Your task to perform on an android device: Open eBay Image 0: 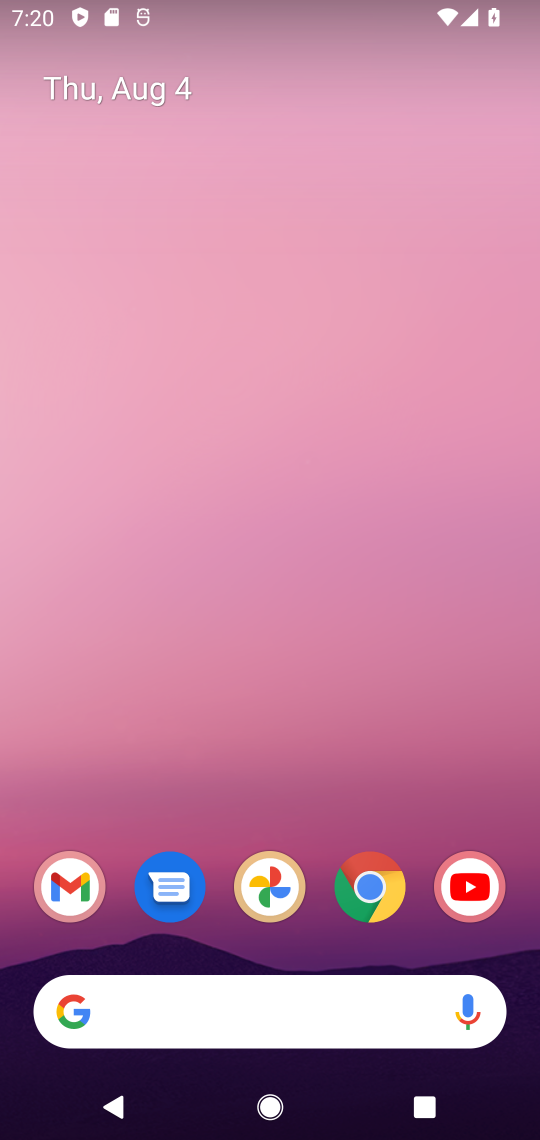
Step 0: drag from (285, 987) to (279, 513)
Your task to perform on an android device: Open eBay Image 1: 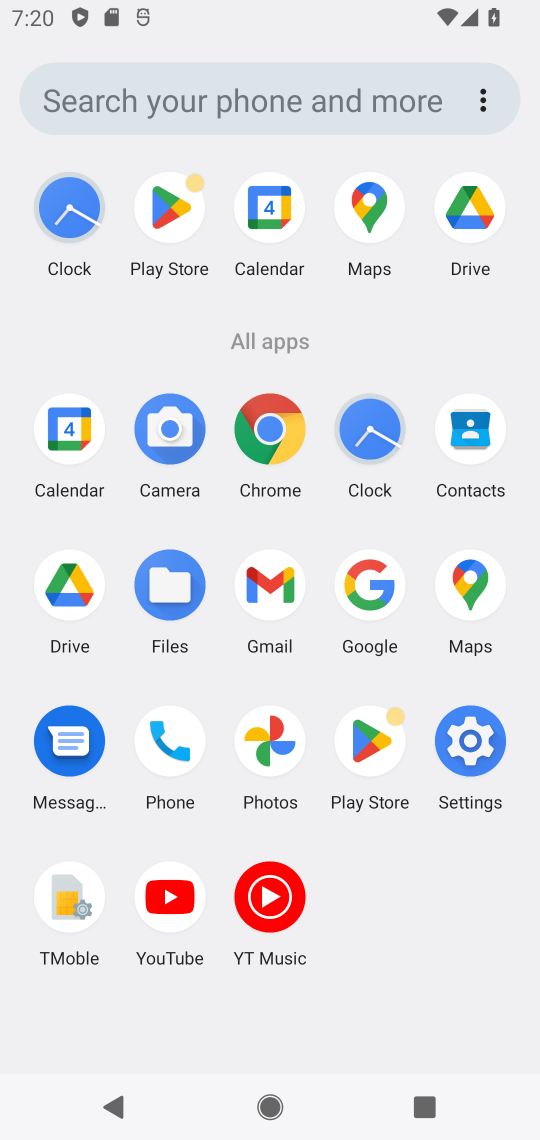
Step 1: click (377, 580)
Your task to perform on an android device: Open eBay Image 2: 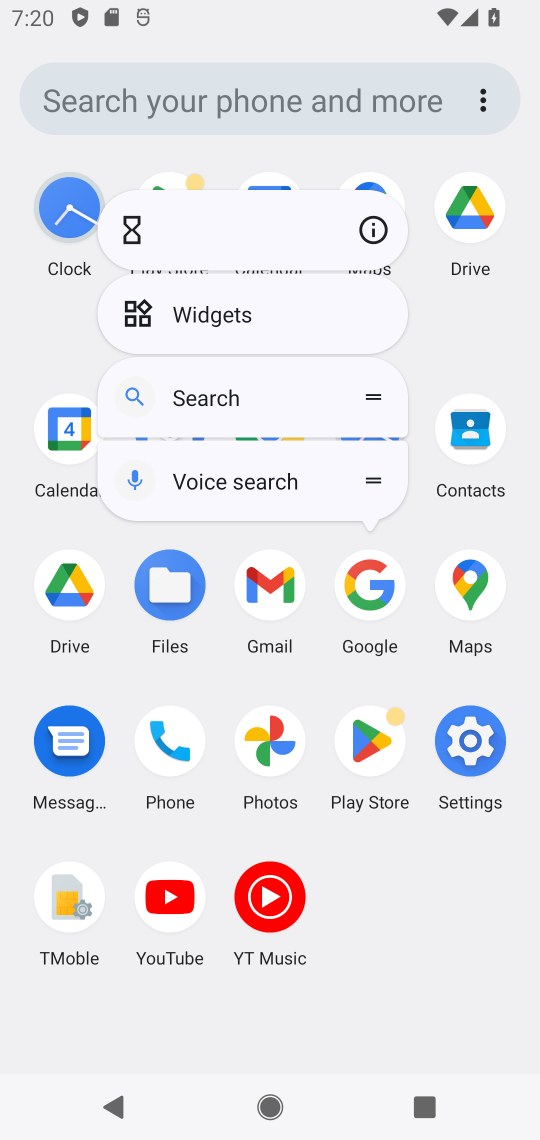
Step 2: click (390, 612)
Your task to perform on an android device: Open eBay Image 3: 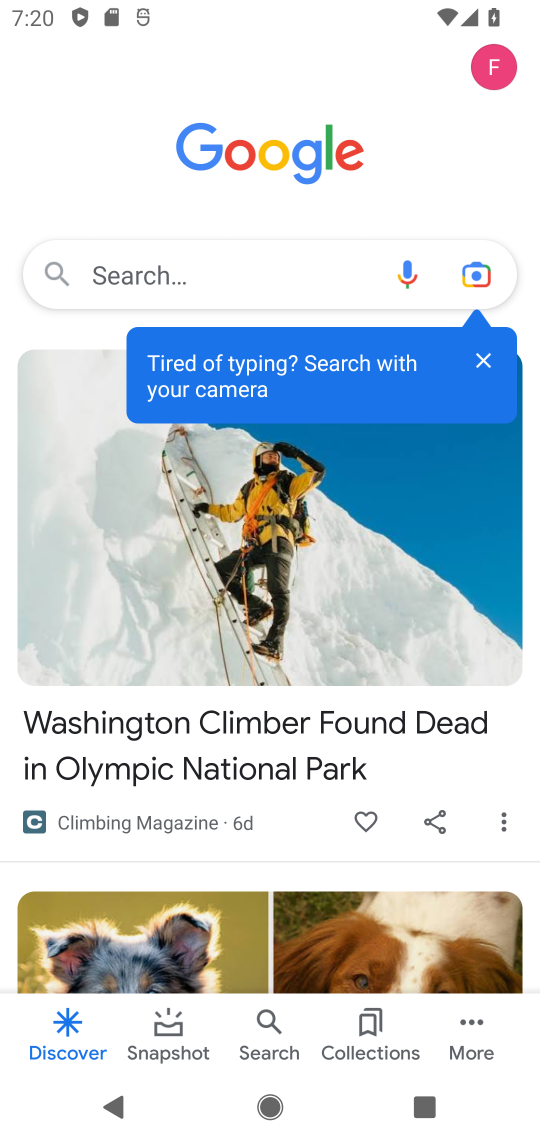
Step 3: click (279, 262)
Your task to perform on an android device: Open eBay Image 4: 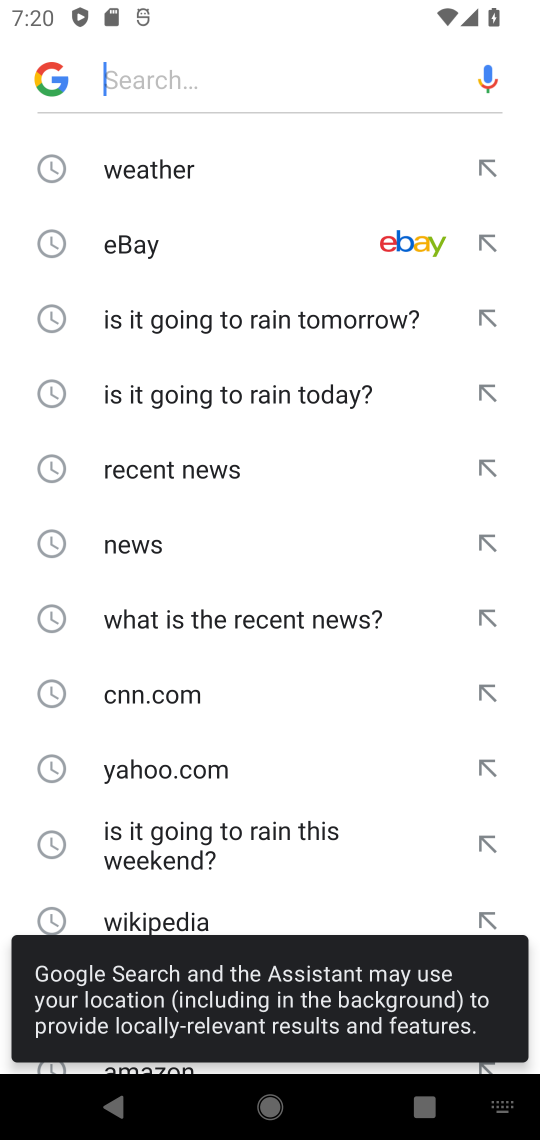
Step 4: click (255, 269)
Your task to perform on an android device: Open eBay Image 5: 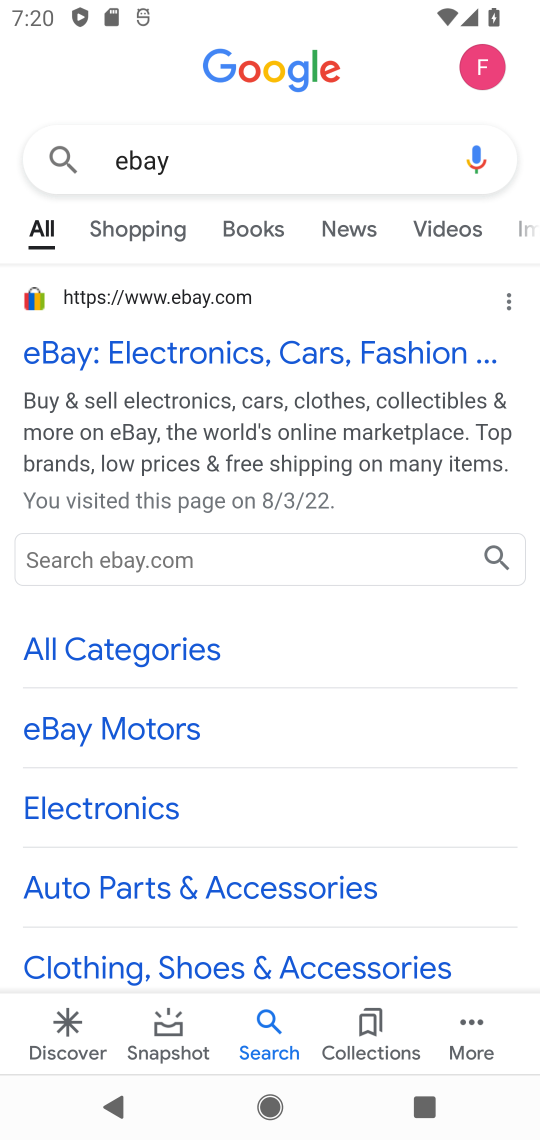
Step 5: click (314, 339)
Your task to perform on an android device: Open eBay Image 6: 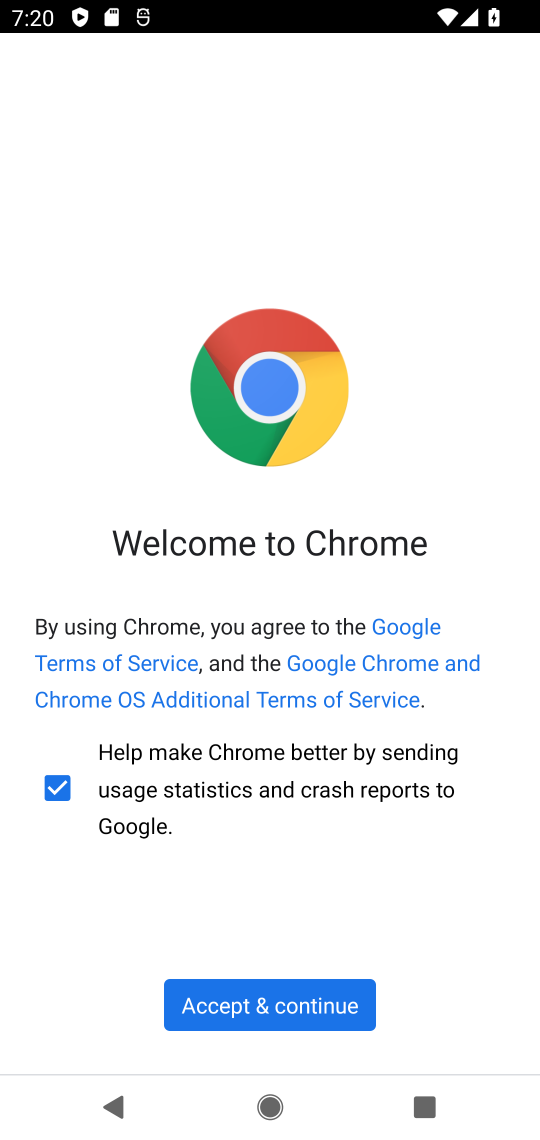
Step 6: click (255, 1002)
Your task to perform on an android device: Open eBay Image 7: 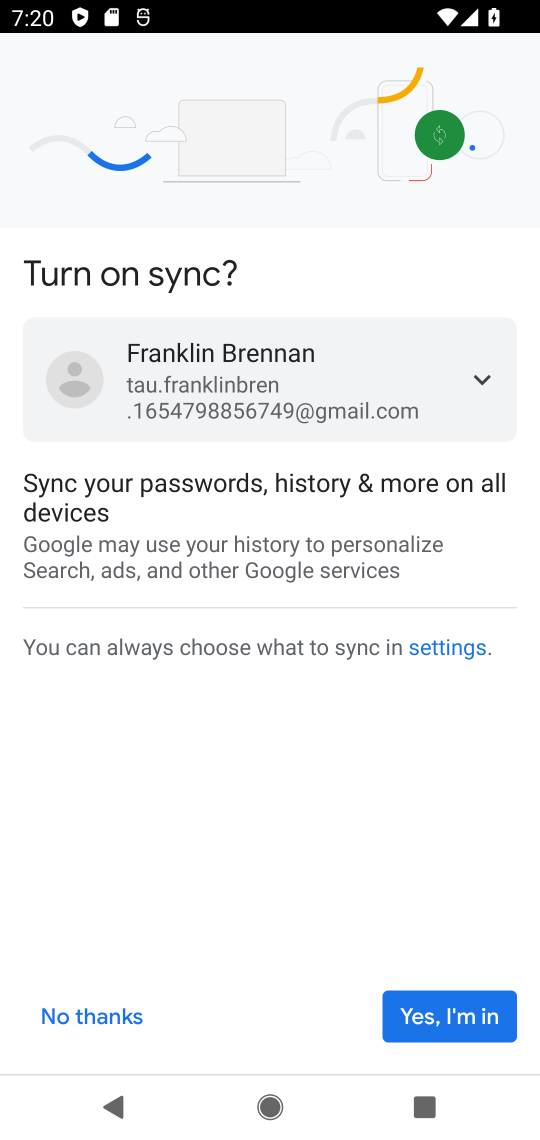
Step 7: click (443, 1019)
Your task to perform on an android device: Open eBay Image 8: 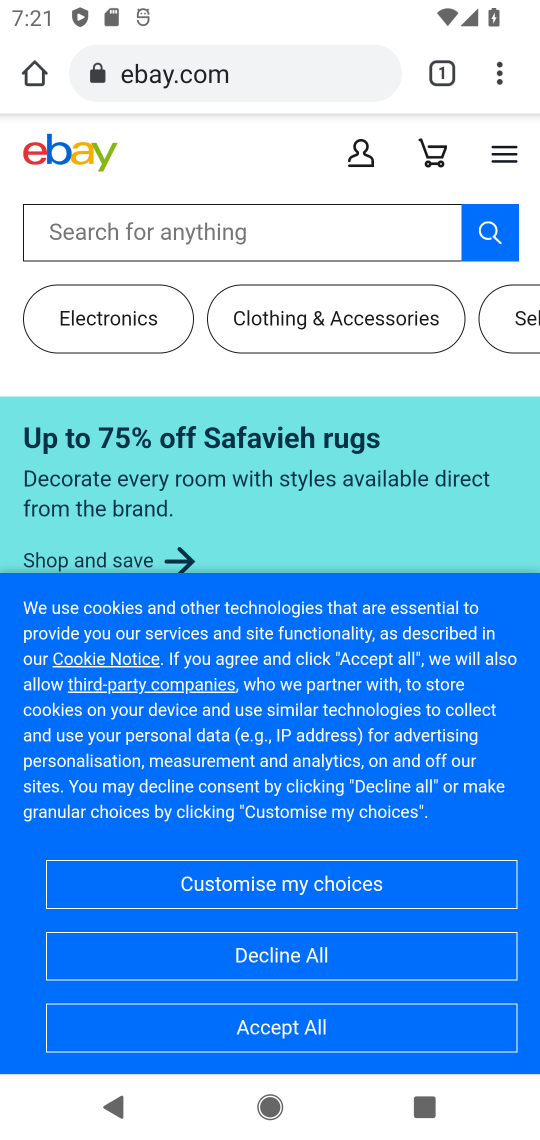
Step 8: task complete